Your task to perform on an android device: toggle translation in the chrome app Image 0: 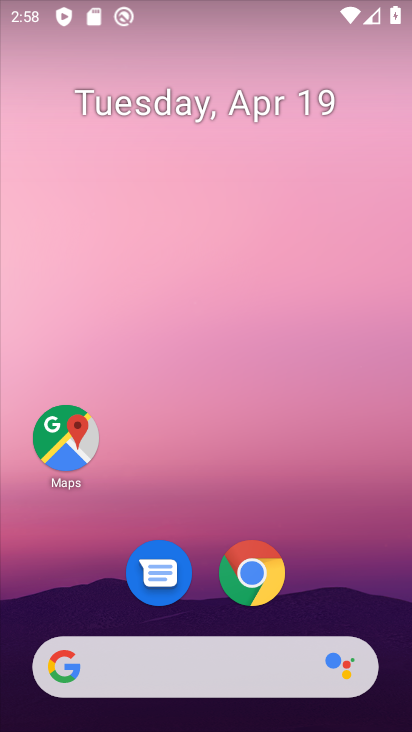
Step 0: click (245, 586)
Your task to perform on an android device: toggle translation in the chrome app Image 1: 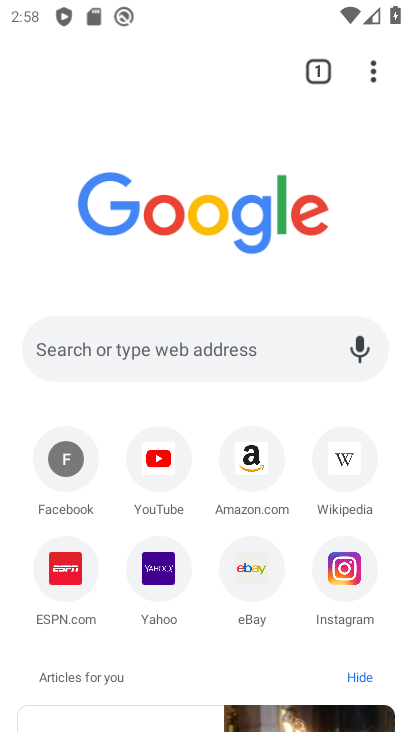
Step 1: click (372, 78)
Your task to perform on an android device: toggle translation in the chrome app Image 2: 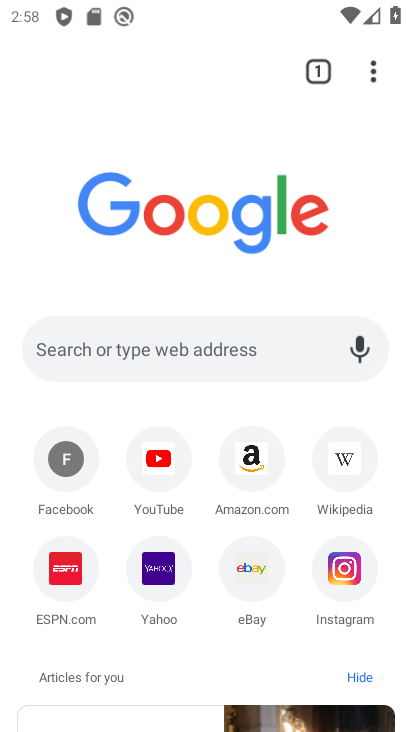
Step 2: drag from (369, 74) to (226, 623)
Your task to perform on an android device: toggle translation in the chrome app Image 3: 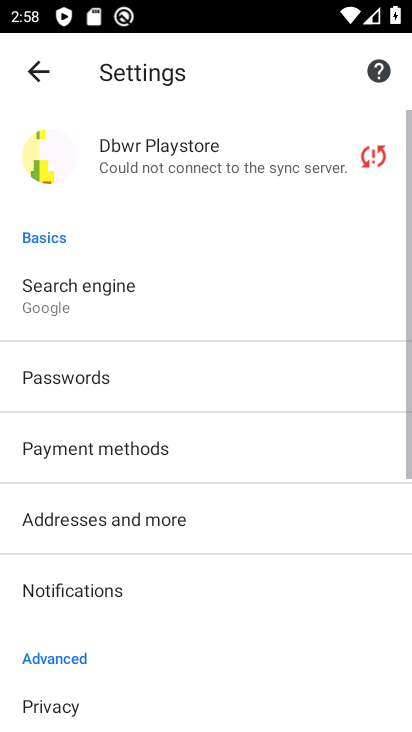
Step 3: drag from (188, 649) to (177, 225)
Your task to perform on an android device: toggle translation in the chrome app Image 4: 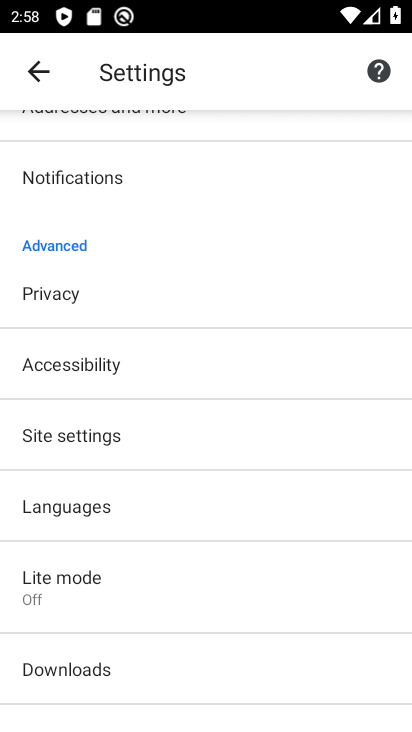
Step 4: click (99, 518)
Your task to perform on an android device: toggle translation in the chrome app Image 5: 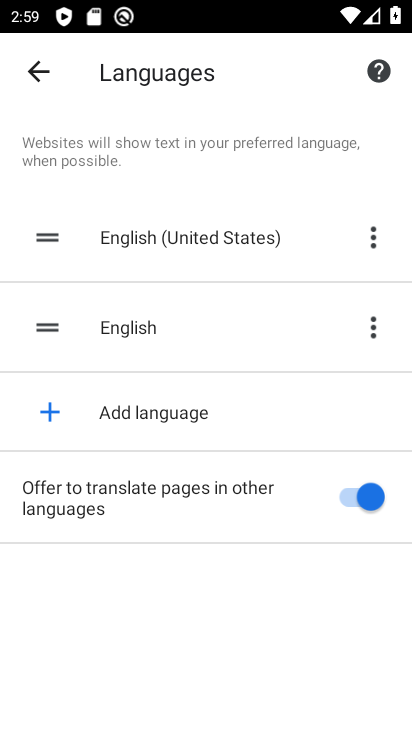
Step 5: click (352, 496)
Your task to perform on an android device: toggle translation in the chrome app Image 6: 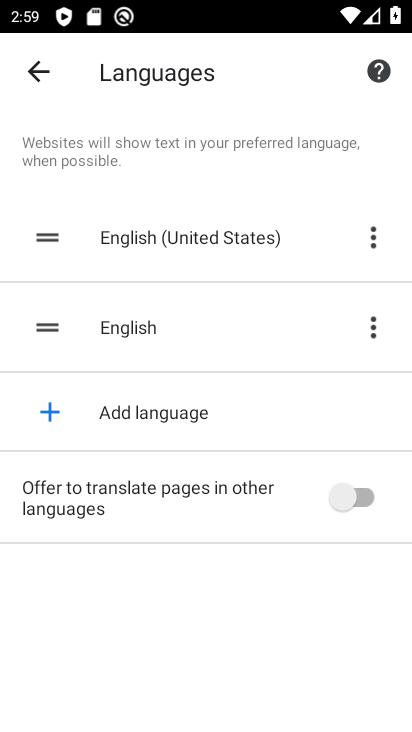
Step 6: task complete